Your task to perform on an android device: Open Google Chrome and click the shortcut for Amazon.com Image 0: 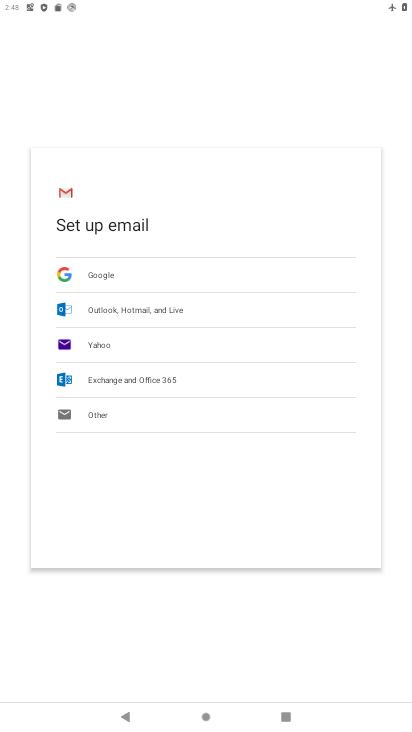
Step 0: press home button
Your task to perform on an android device: Open Google Chrome and click the shortcut for Amazon.com Image 1: 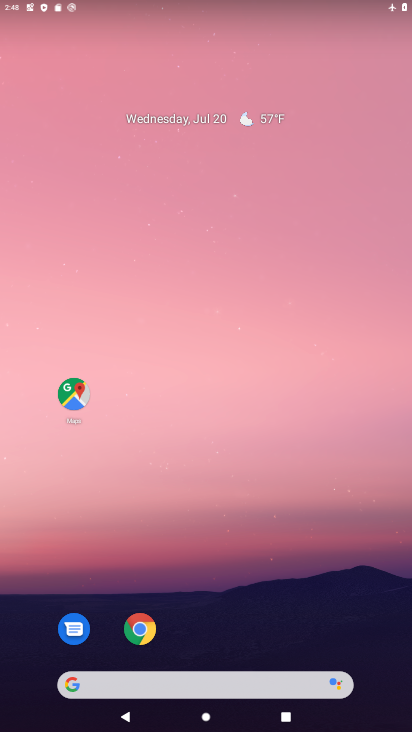
Step 1: click (139, 625)
Your task to perform on an android device: Open Google Chrome and click the shortcut for Amazon.com Image 2: 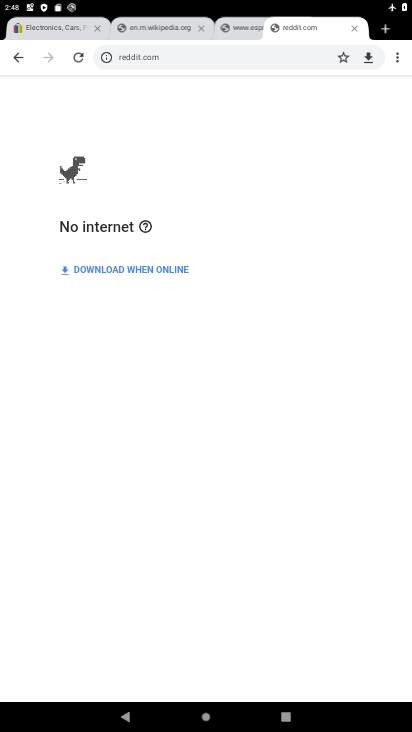
Step 2: click (381, 22)
Your task to perform on an android device: Open Google Chrome and click the shortcut for Amazon.com Image 3: 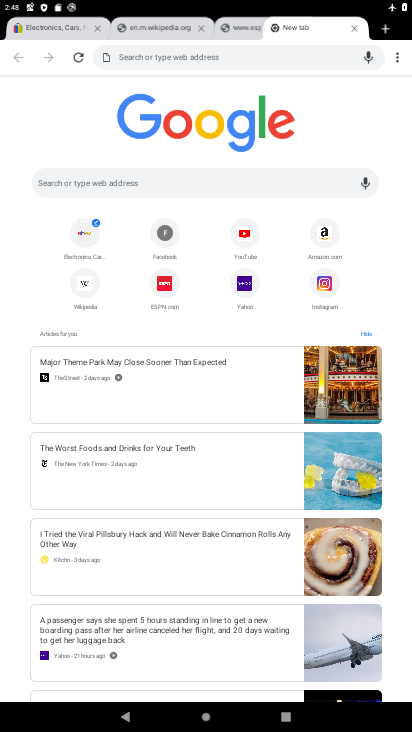
Step 3: click (317, 235)
Your task to perform on an android device: Open Google Chrome and click the shortcut for Amazon.com Image 4: 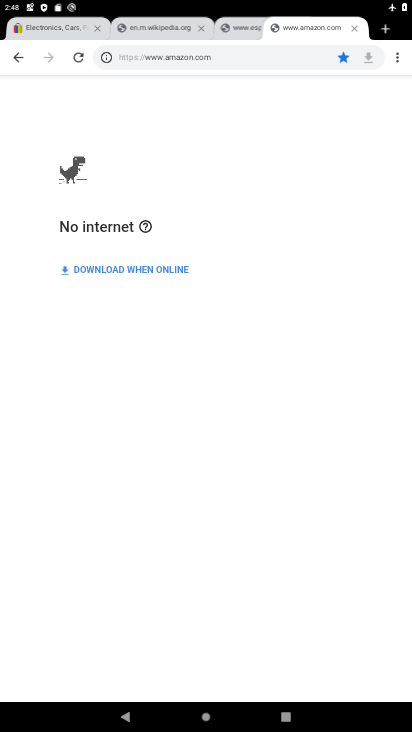
Step 4: task complete